Your task to perform on an android device: Go to Maps Image 0: 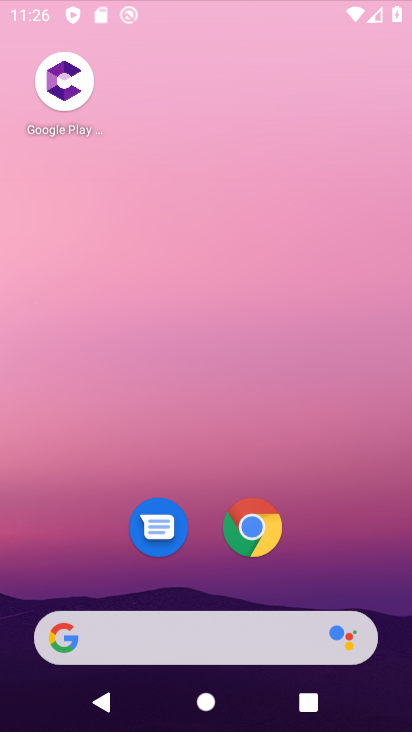
Step 0: click (211, 442)
Your task to perform on an android device: Go to Maps Image 1: 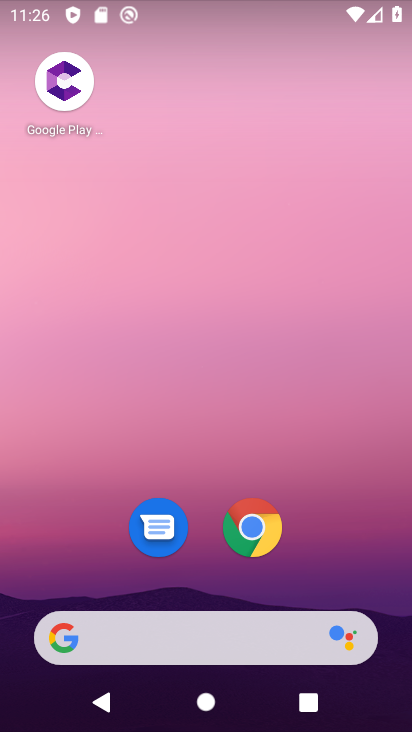
Step 1: drag from (174, 576) to (169, 17)
Your task to perform on an android device: Go to Maps Image 2: 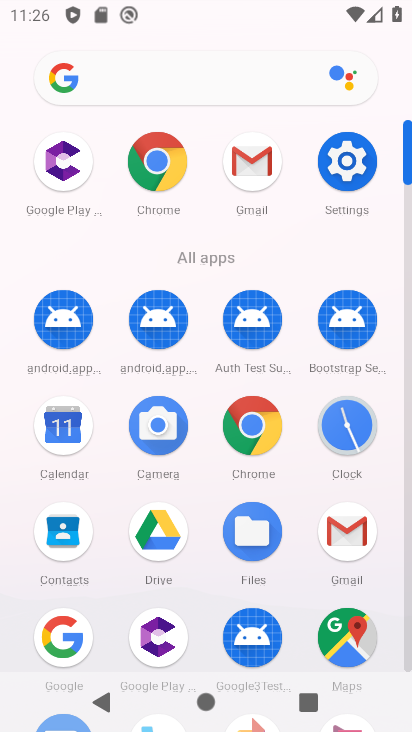
Step 2: click (346, 630)
Your task to perform on an android device: Go to Maps Image 3: 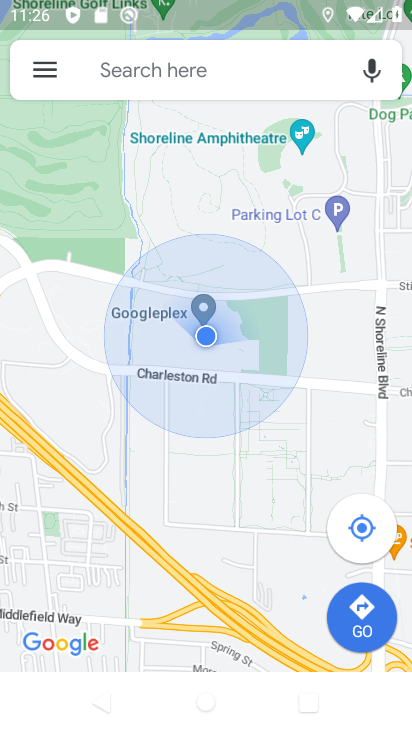
Step 3: task complete